Your task to perform on an android device: check android version Image 0: 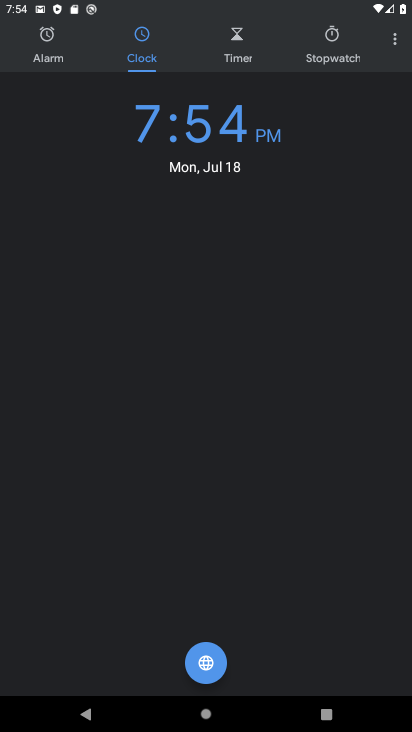
Step 0: press home button
Your task to perform on an android device: check android version Image 1: 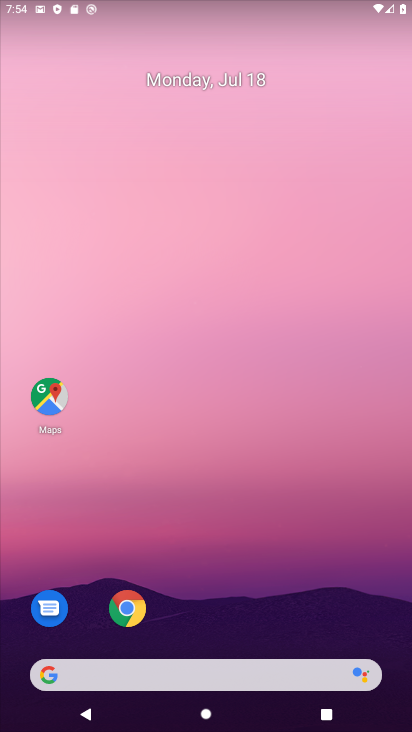
Step 1: drag from (220, 722) to (222, 201)
Your task to perform on an android device: check android version Image 2: 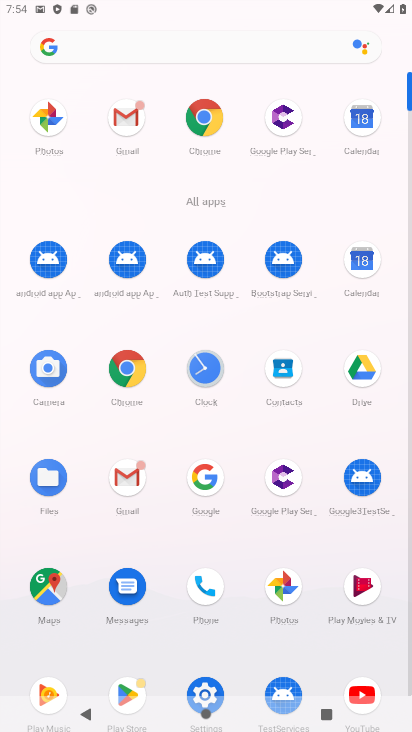
Step 2: click (210, 689)
Your task to perform on an android device: check android version Image 3: 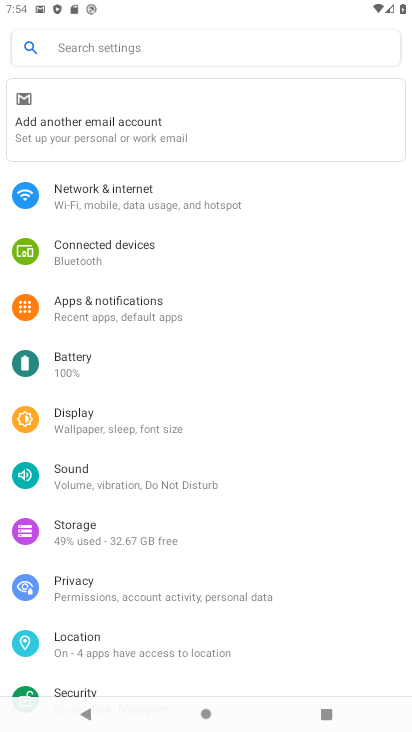
Step 3: drag from (155, 648) to (155, 208)
Your task to perform on an android device: check android version Image 4: 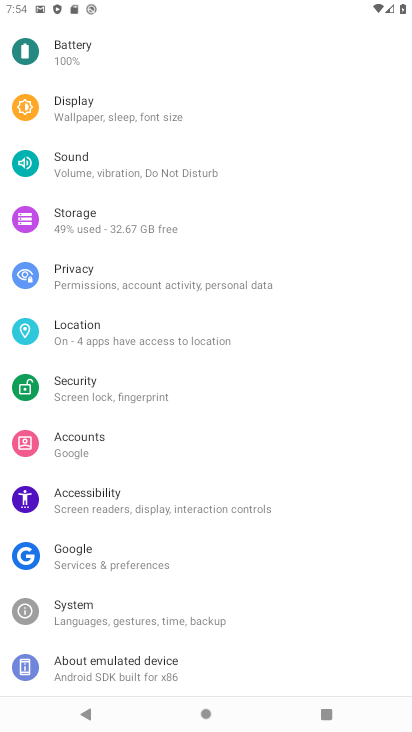
Step 4: drag from (119, 666) to (119, 340)
Your task to perform on an android device: check android version Image 5: 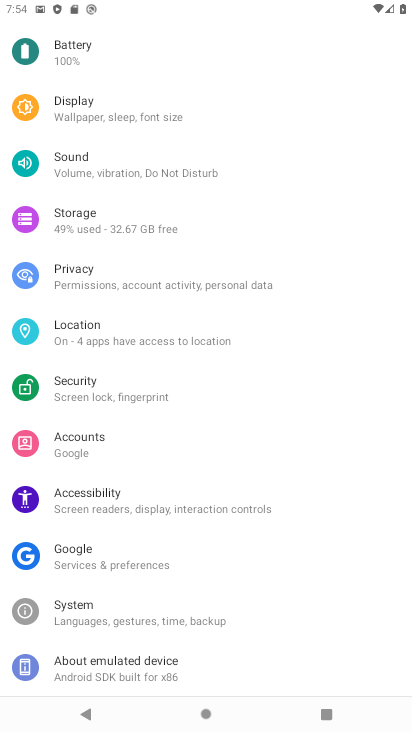
Step 5: click (123, 667)
Your task to perform on an android device: check android version Image 6: 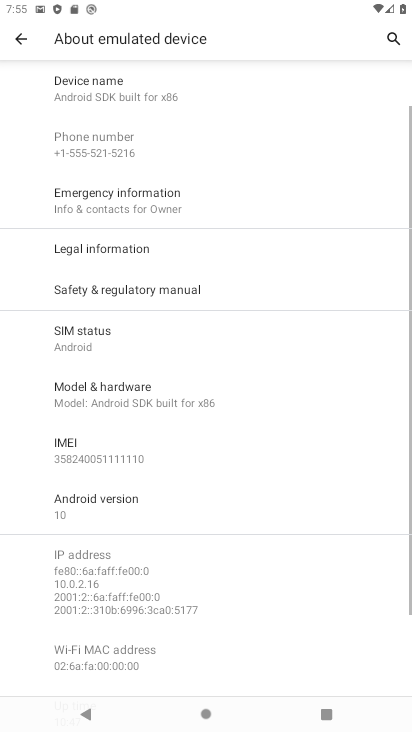
Step 6: click (98, 495)
Your task to perform on an android device: check android version Image 7: 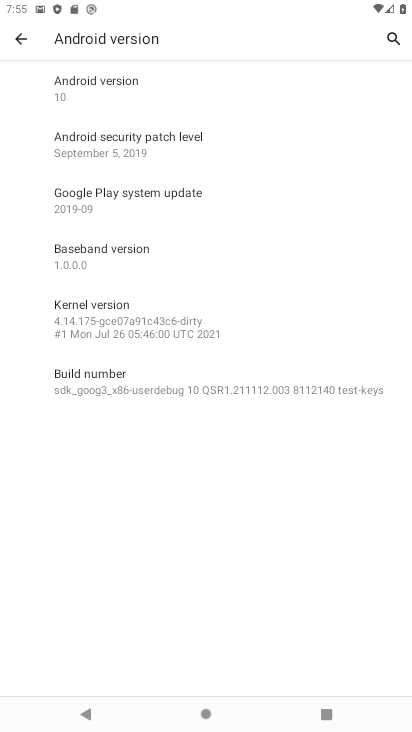
Step 7: task complete